Your task to perform on an android device: Open wifi settings Image 0: 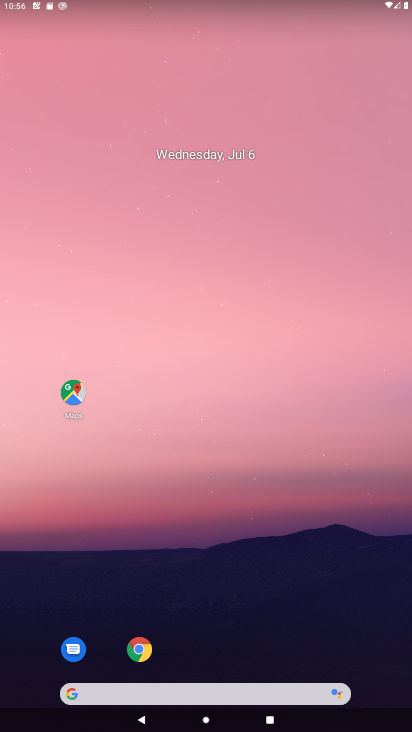
Step 0: drag from (307, 683) to (290, 50)
Your task to perform on an android device: Open wifi settings Image 1: 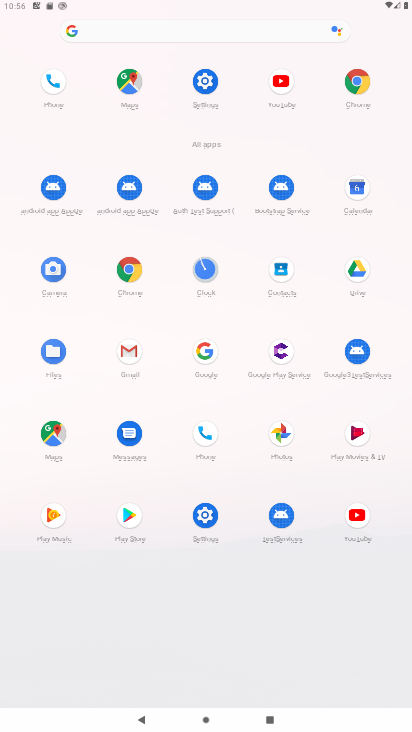
Step 1: click (206, 73)
Your task to perform on an android device: Open wifi settings Image 2: 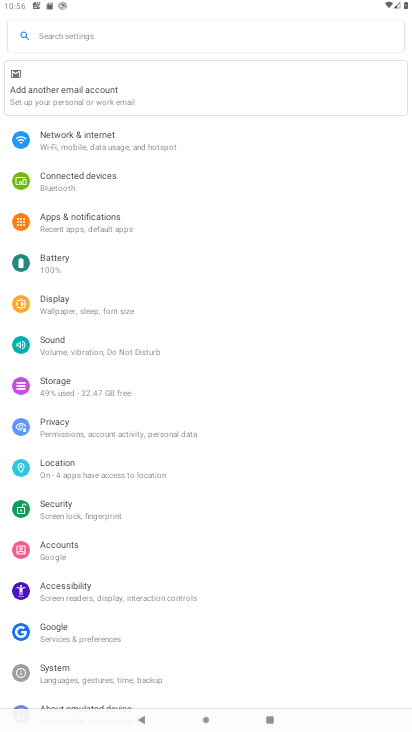
Step 2: drag from (108, 147) to (78, 445)
Your task to perform on an android device: Open wifi settings Image 3: 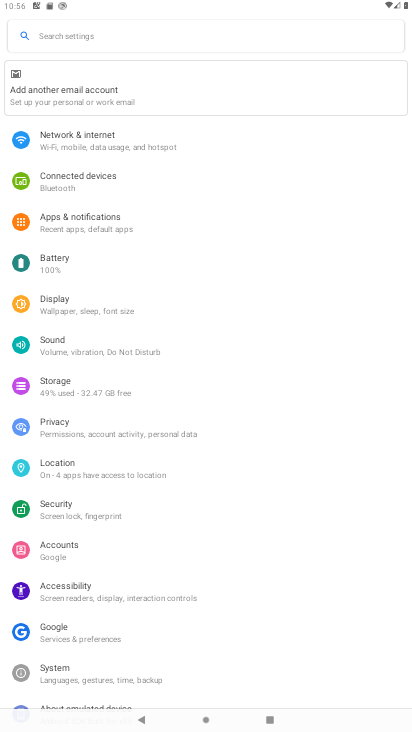
Step 3: click (90, 148)
Your task to perform on an android device: Open wifi settings Image 4: 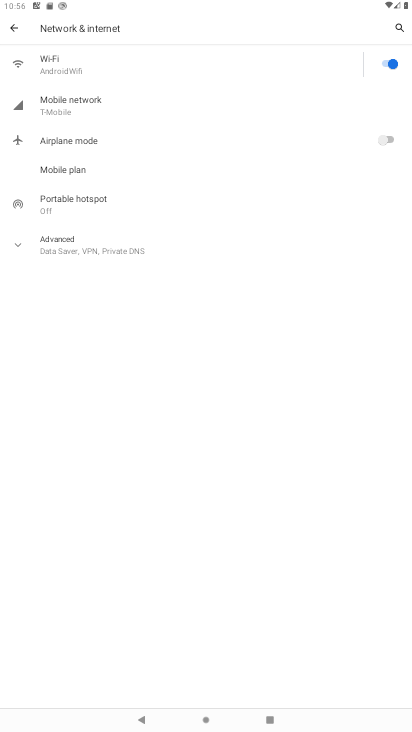
Step 4: click (87, 72)
Your task to perform on an android device: Open wifi settings Image 5: 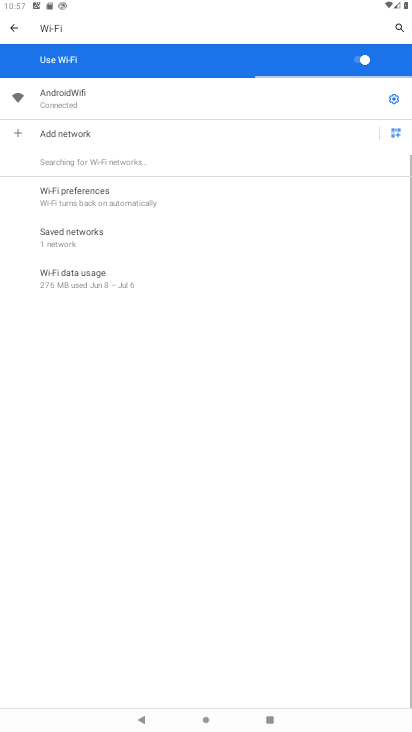
Step 5: task complete